Your task to perform on an android device: When is my next appointment? Image 0: 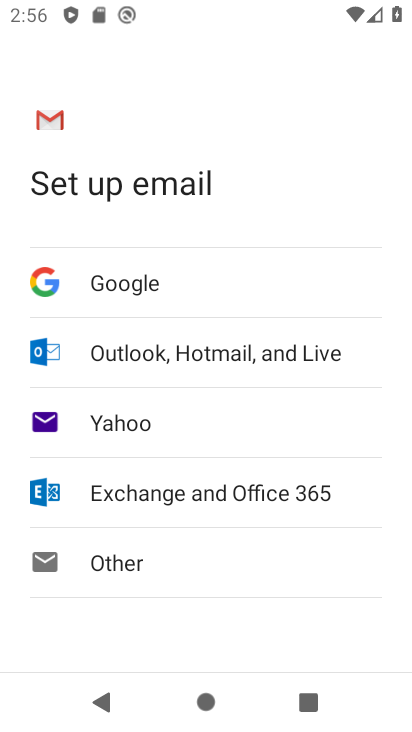
Step 0: press home button
Your task to perform on an android device: When is my next appointment? Image 1: 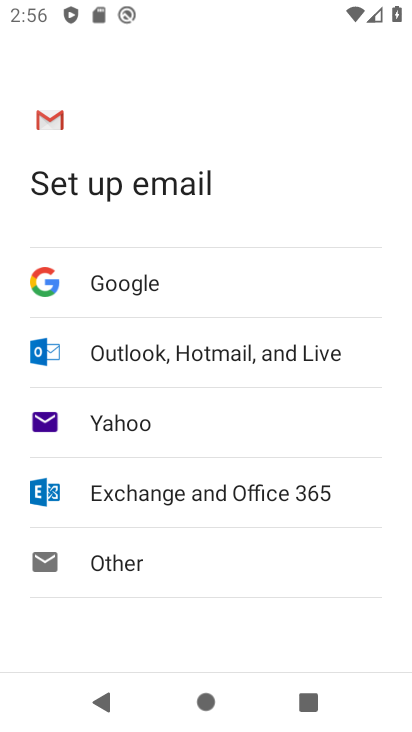
Step 1: press home button
Your task to perform on an android device: When is my next appointment? Image 2: 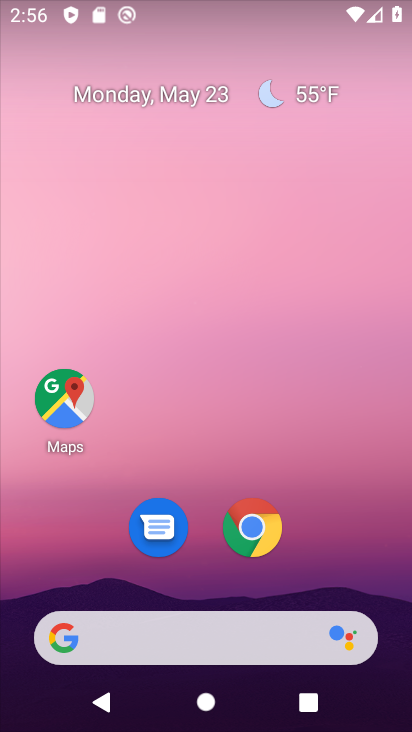
Step 2: drag from (203, 575) to (236, 47)
Your task to perform on an android device: When is my next appointment? Image 3: 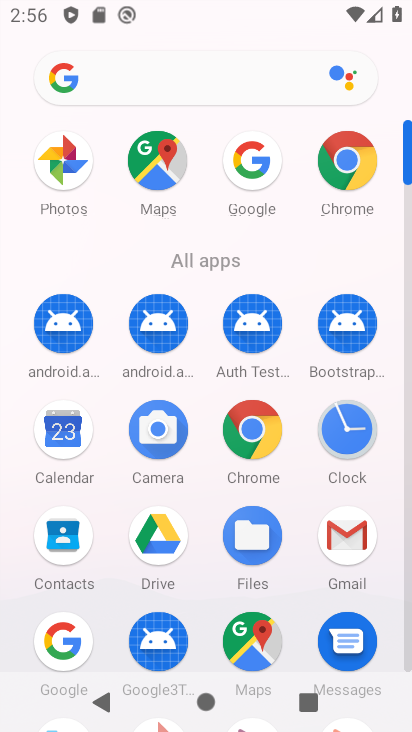
Step 3: click (63, 429)
Your task to perform on an android device: When is my next appointment? Image 4: 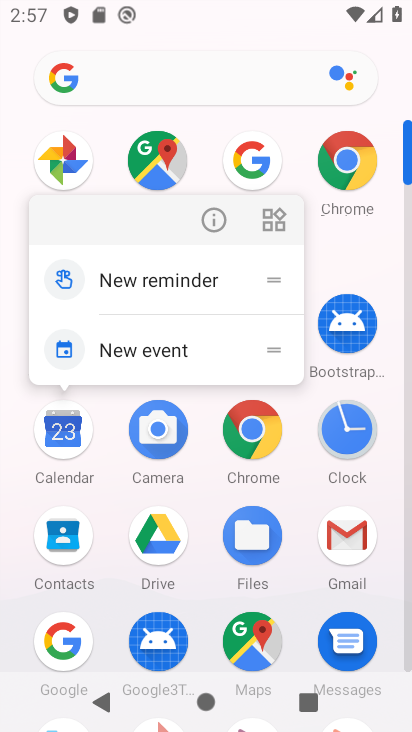
Step 4: click (60, 427)
Your task to perform on an android device: When is my next appointment? Image 5: 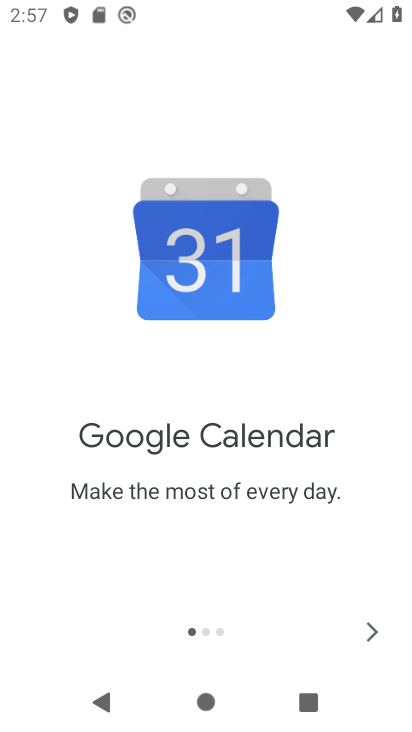
Step 5: click (363, 625)
Your task to perform on an android device: When is my next appointment? Image 6: 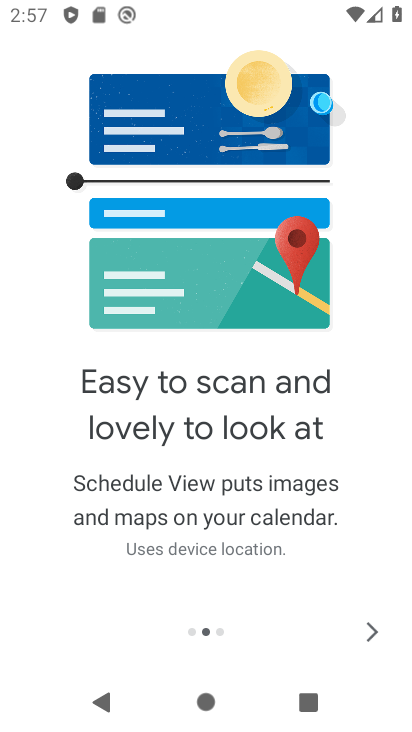
Step 6: click (363, 625)
Your task to perform on an android device: When is my next appointment? Image 7: 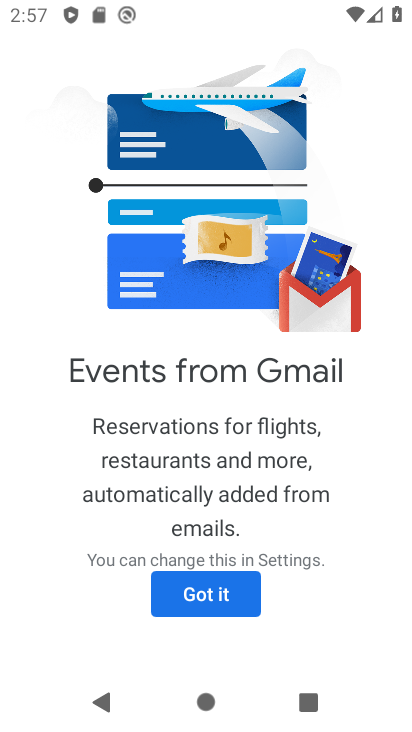
Step 7: click (211, 587)
Your task to perform on an android device: When is my next appointment? Image 8: 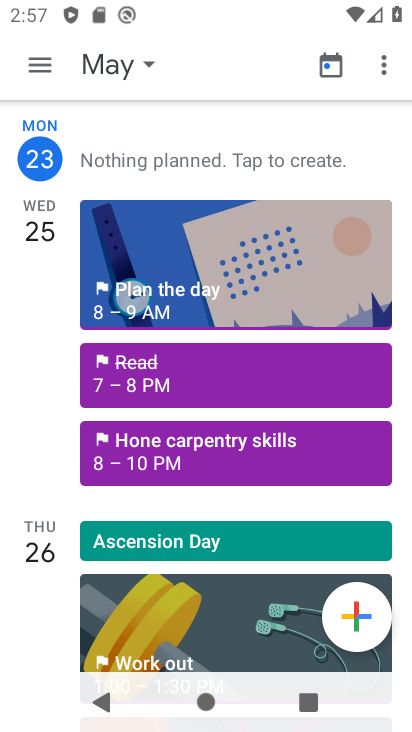
Step 8: task complete